Your task to perform on an android device: Go to Maps Image 0: 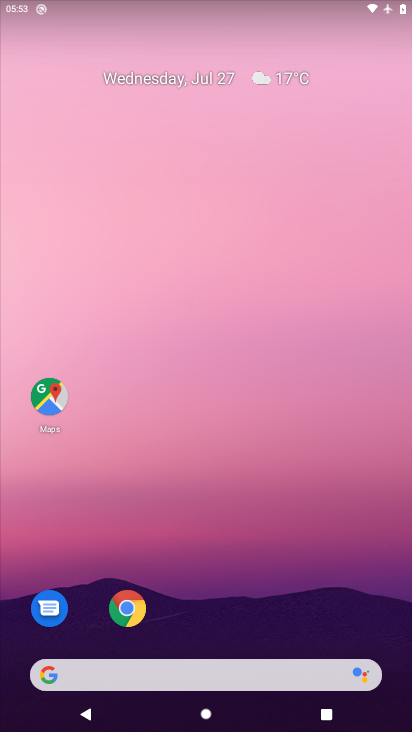
Step 0: press home button
Your task to perform on an android device: Go to Maps Image 1: 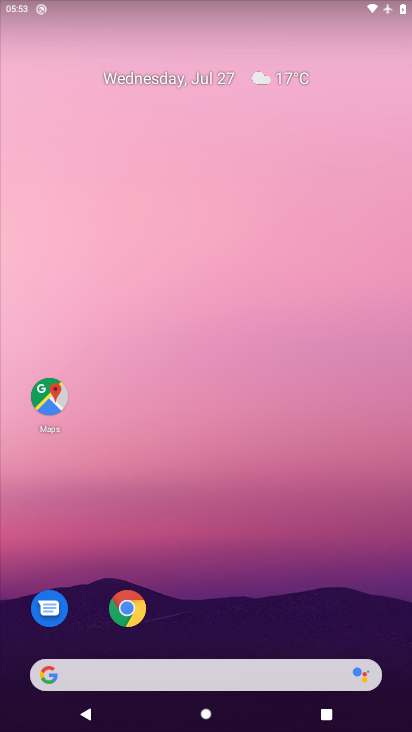
Step 1: click (46, 397)
Your task to perform on an android device: Go to Maps Image 2: 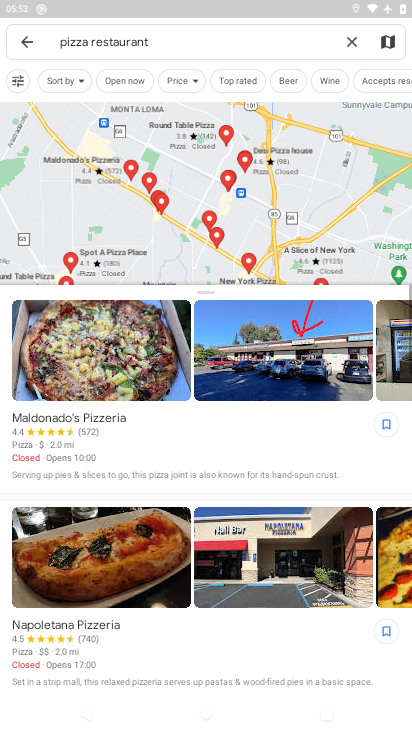
Step 2: click (24, 43)
Your task to perform on an android device: Go to Maps Image 3: 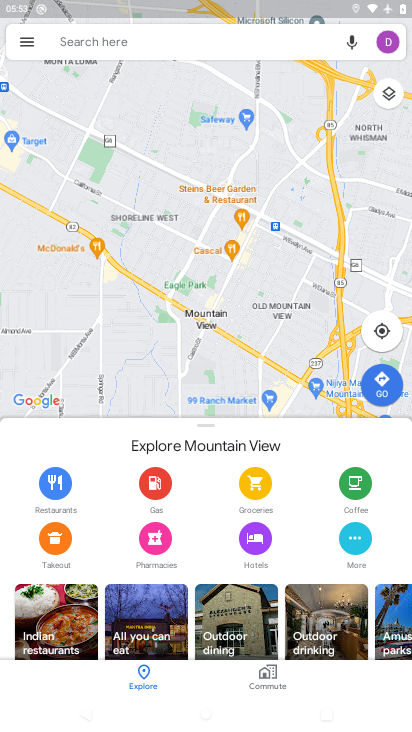
Step 3: task complete